Your task to perform on an android device: toggle priority inbox in the gmail app Image 0: 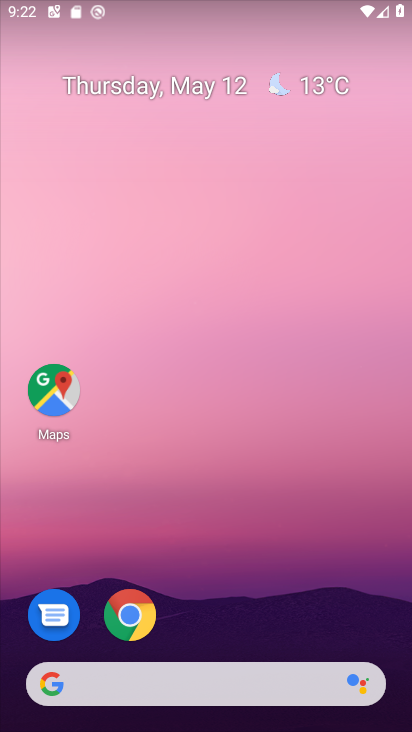
Step 0: drag from (247, 609) to (133, 217)
Your task to perform on an android device: toggle priority inbox in the gmail app Image 1: 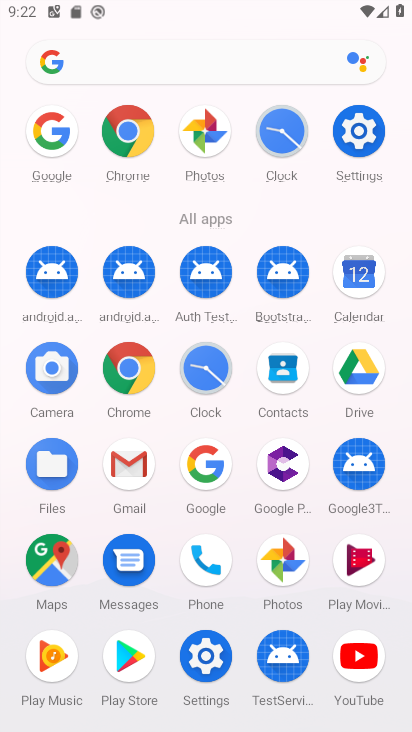
Step 1: click (126, 465)
Your task to perform on an android device: toggle priority inbox in the gmail app Image 2: 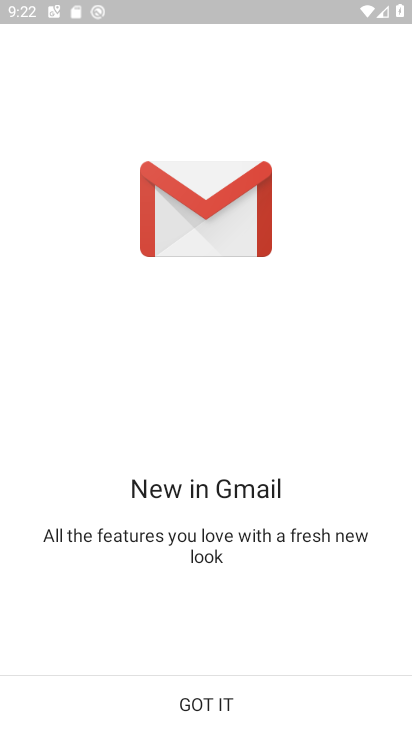
Step 2: click (213, 698)
Your task to perform on an android device: toggle priority inbox in the gmail app Image 3: 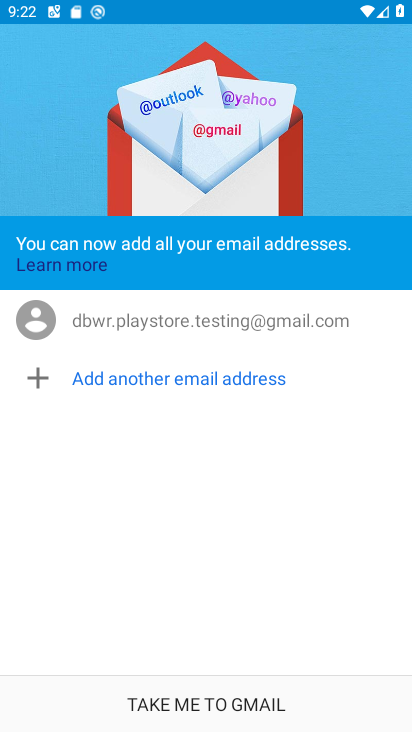
Step 3: click (213, 698)
Your task to perform on an android device: toggle priority inbox in the gmail app Image 4: 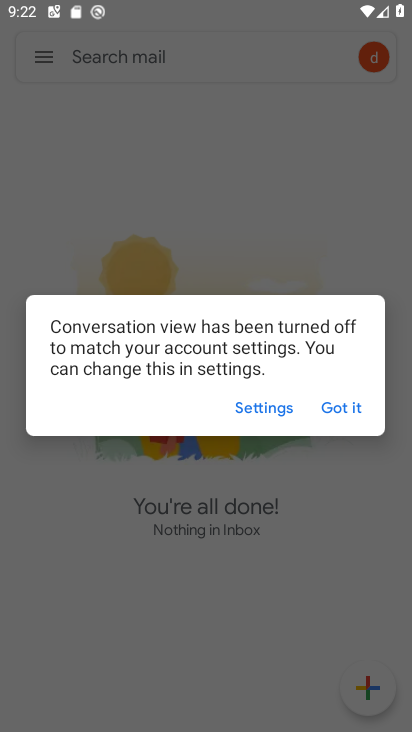
Step 4: click (342, 406)
Your task to perform on an android device: toggle priority inbox in the gmail app Image 5: 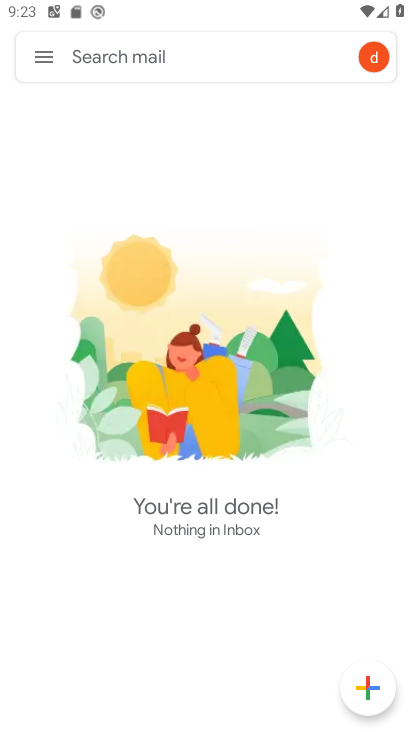
Step 5: click (45, 53)
Your task to perform on an android device: toggle priority inbox in the gmail app Image 6: 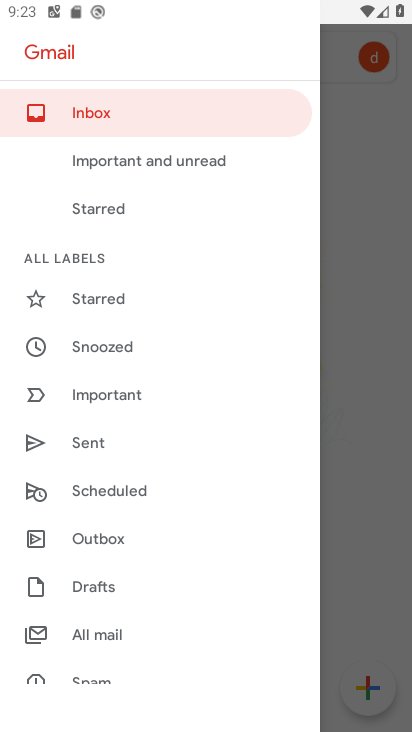
Step 6: drag from (142, 570) to (7, 119)
Your task to perform on an android device: toggle priority inbox in the gmail app Image 7: 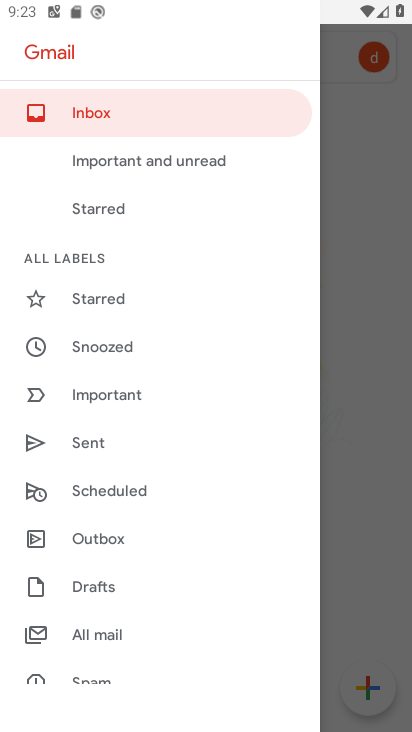
Step 7: drag from (187, 616) to (96, 227)
Your task to perform on an android device: toggle priority inbox in the gmail app Image 8: 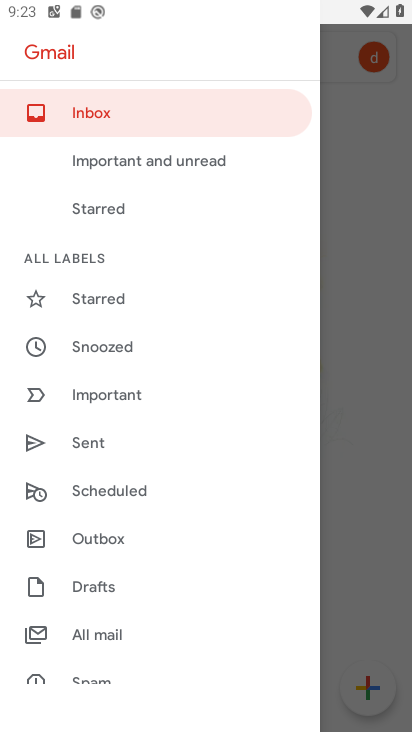
Step 8: drag from (143, 598) to (143, 303)
Your task to perform on an android device: toggle priority inbox in the gmail app Image 9: 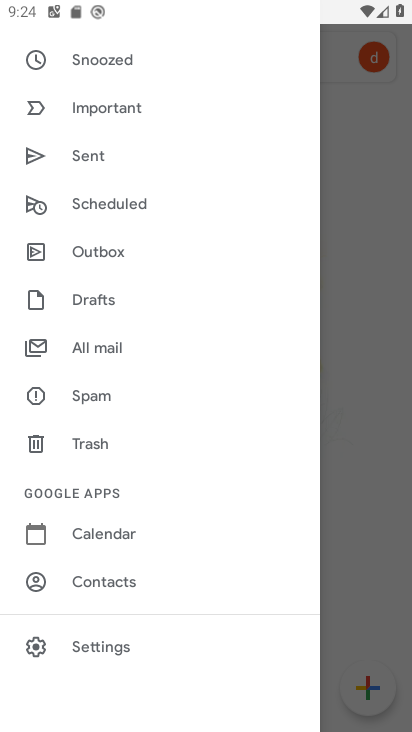
Step 9: click (97, 641)
Your task to perform on an android device: toggle priority inbox in the gmail app Image 10: 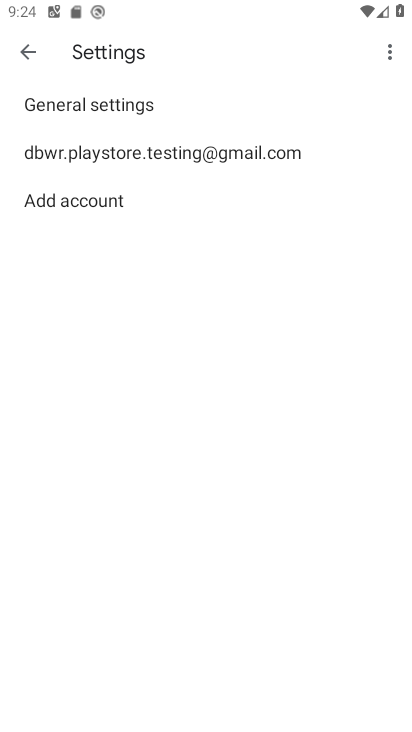
Step 10: click (117, 151)
Your task to perform on an android device: toggle priority inbox in the gmail app Image 11: 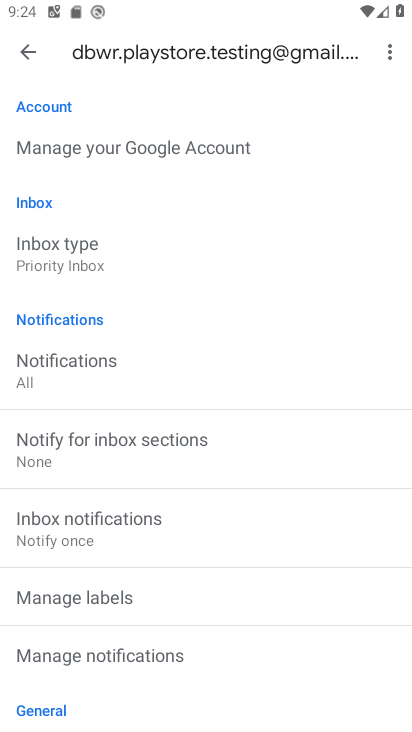
Step 11: click (60, 254)
Your task to perform on an android device: toggle priority inbox in the gmail app Image 12: 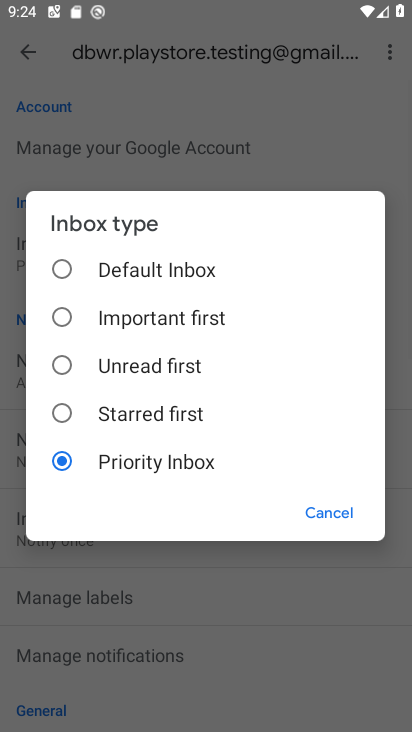
Step 12: click (59, 275)
Your task to perform on an android device: toggle priority inbox in the gmail app Image 13: 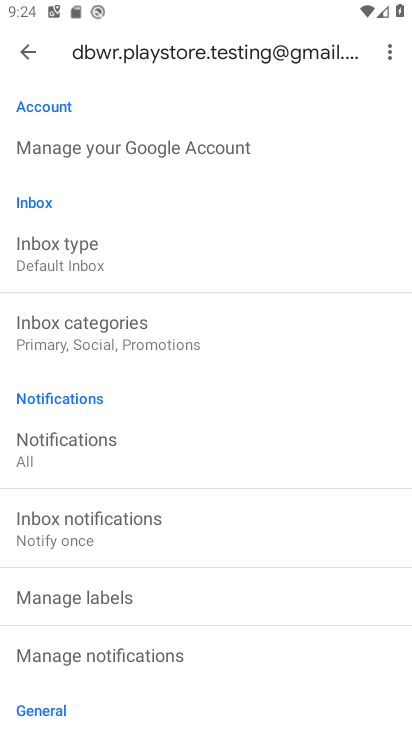
Step 13: task complete